Your task to perform on an android device: change keyboard looks Image 0: 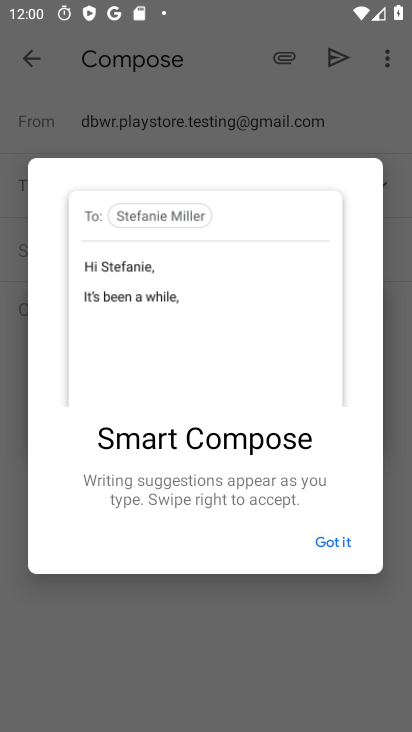
Step 0: press home button
Your task to perform on an android device: change keyboard looks Image 1: 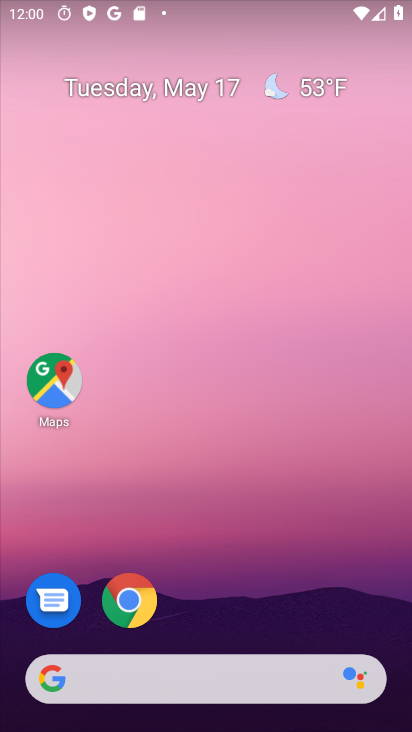
Step 1: press home button
Your task to perform on an android device: change keyboard looks Image 2: 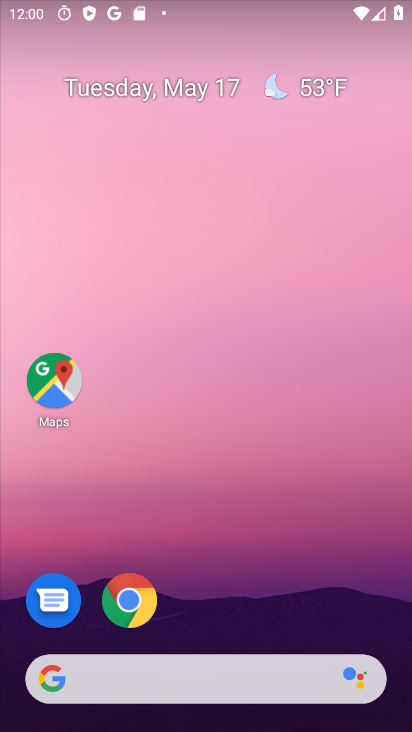
Step 2: drag from (307, 543) to (292, 36)
Your task to perform on an android device: change keyboard looks Image 3: 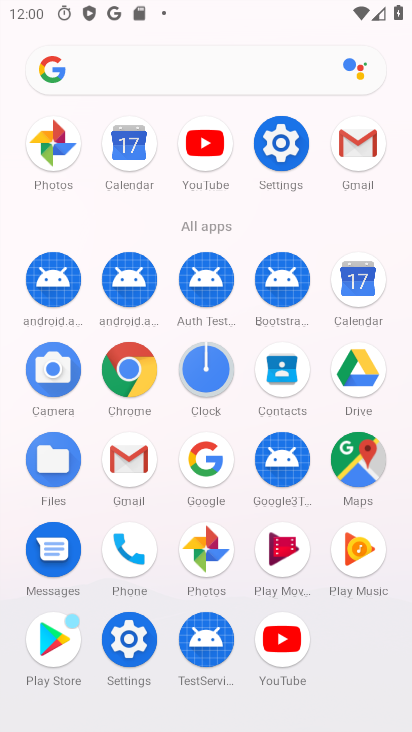
Step 3: click (281, 147)
Your task to perform on an android device: change keyboard looks Image 4: 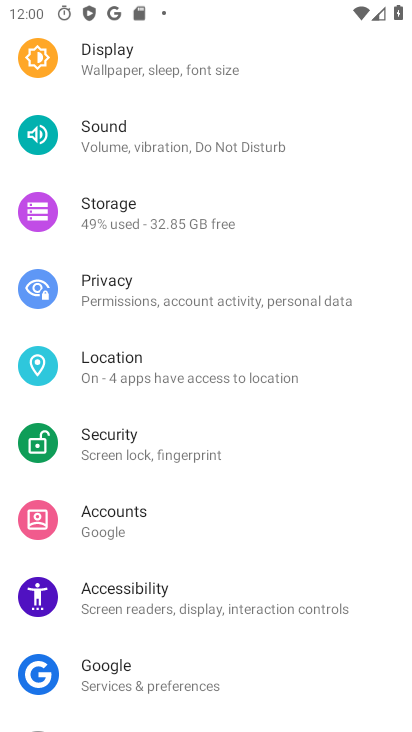
Step 4: drag from (170, 482) to (157, 166)
Your task to perform on an android device: change keyboard looks Image 5: 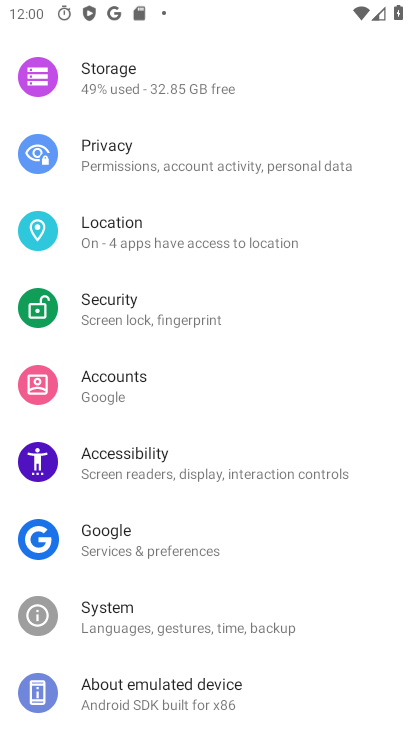
Step 5: click (216, 628)
Your task to perform on an android device: change keyboard looks Image 6: 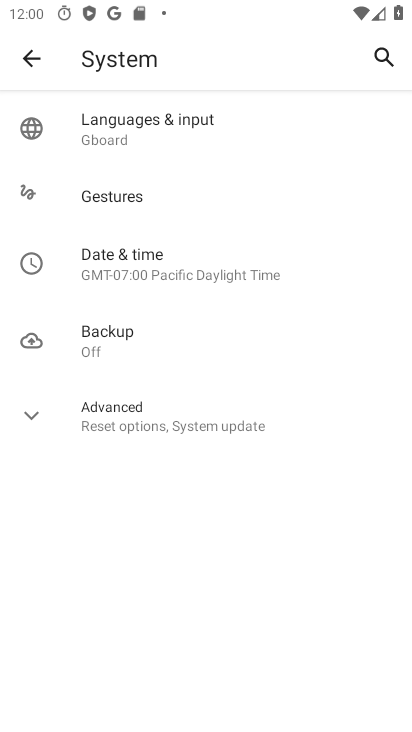
Step 6: click (168, 148)
Your task to perform on an android device: change keyboard looks Image 7: 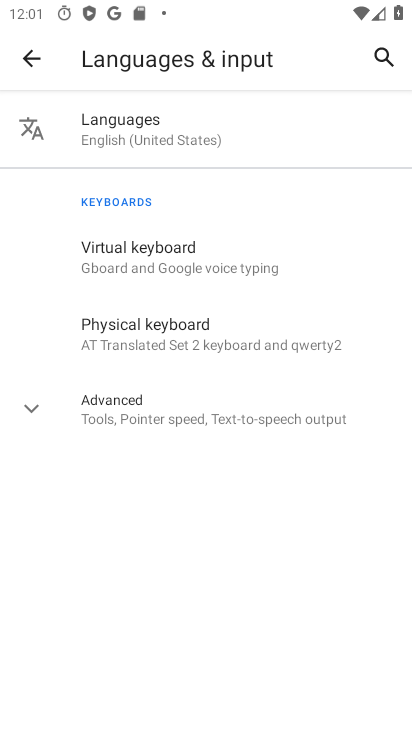
Step 7: click (144, 248)
Your task to perform on an android device: change keyboard looks Image 8: 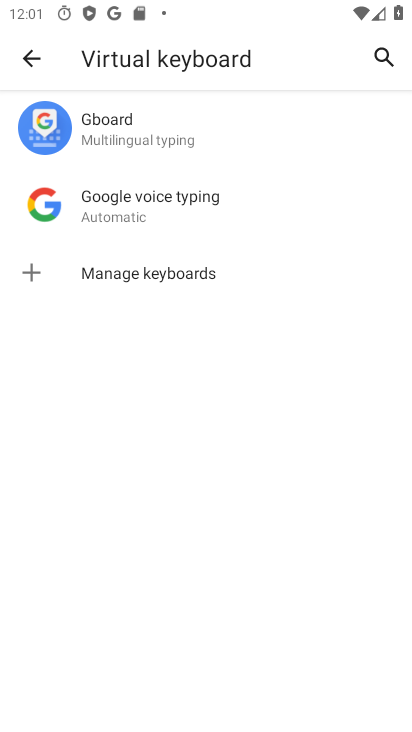
Step 8: click (228, 136)
Your task to perform on an android device: change keyboard looks Image 9: 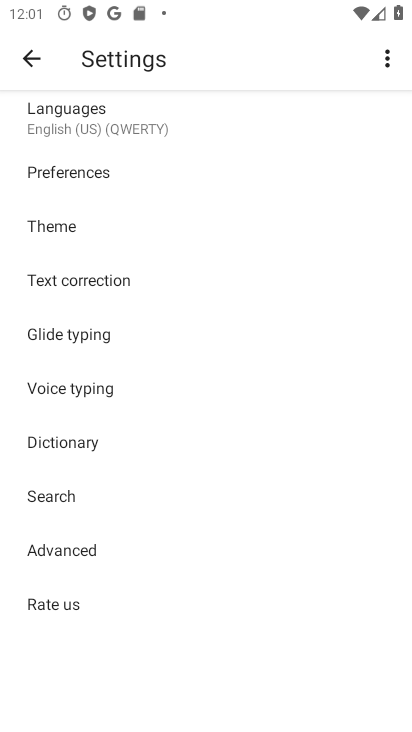
Step 9: click (145, 220)
Your task to perform on an android device: change keyboard looks Image 10: 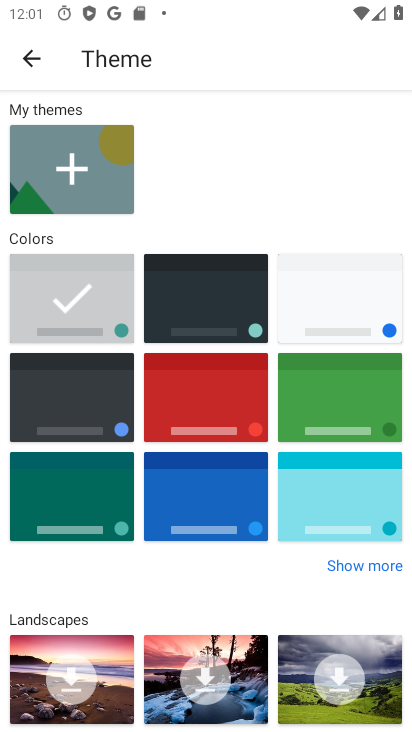
Step 10: click (208, 510)
Your task to perform on an android device: change keyboard looks Image 11: 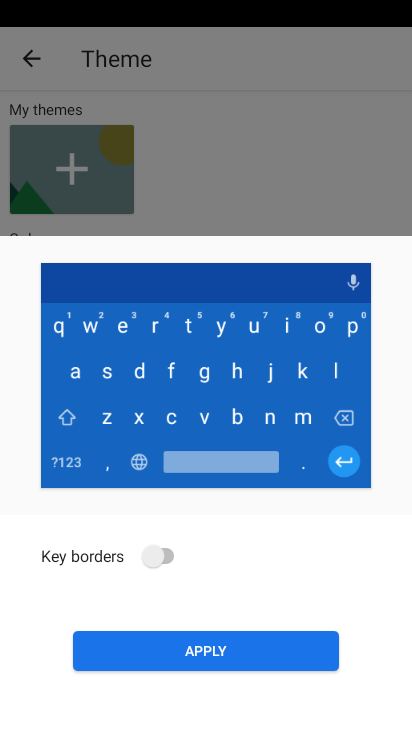
Step 11: click (131, 630)
Your task to perform on an android device: change keyboard looks Image 12: 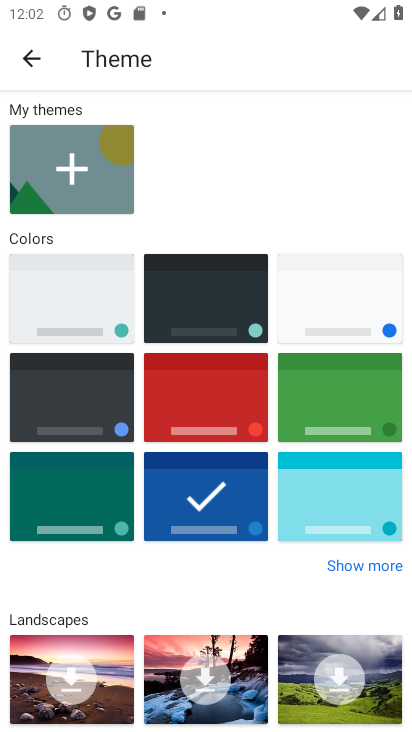
Step 12: task complete